Your task to perform on an android device: Search for "sony triple a" on amazon, select the first entry, and add it to the cart. Image 0: 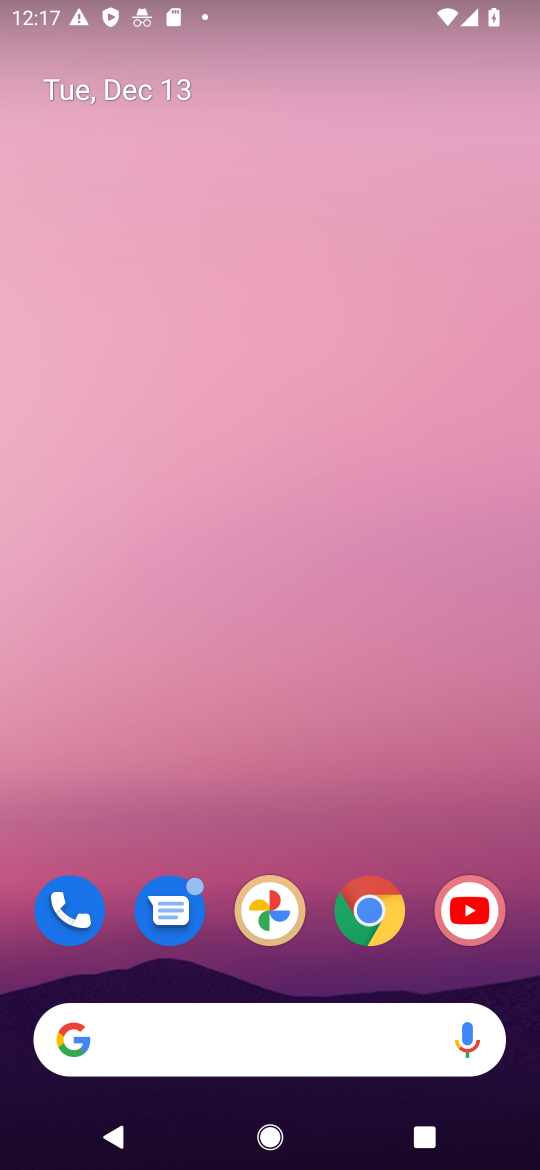
Step 0: click (348, 910)
Your task to perform on an android device: Search for "sony triple a" on amazon, select the first entry, and add it to the cart. Image 1: 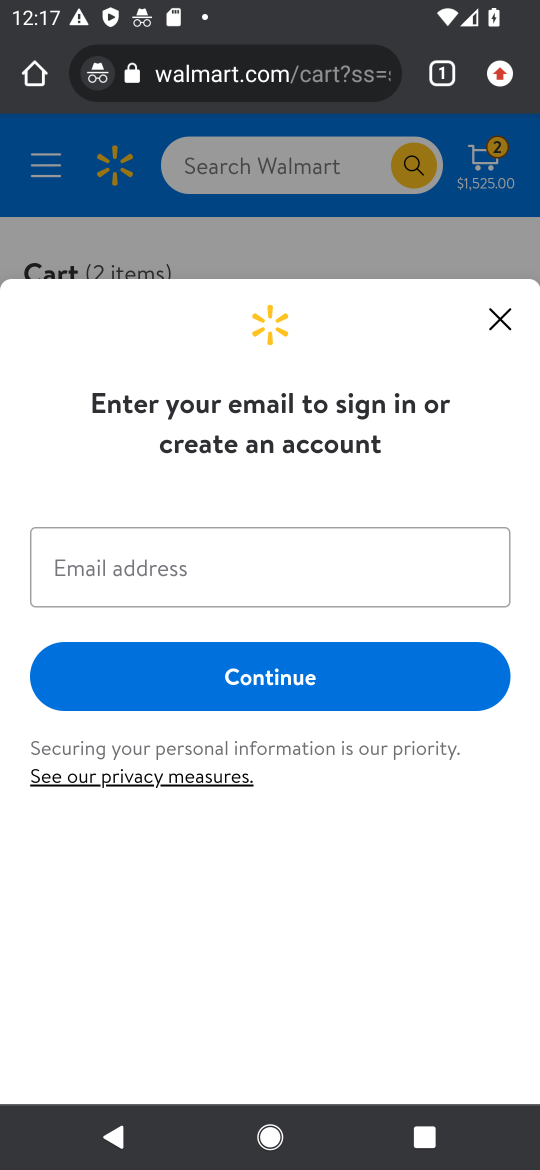
Step 1: click (504, 318)
Your task to perform on an android device: Search for "sony triple a" on amazon, select the first entry, and add it to the cart. Image 2: 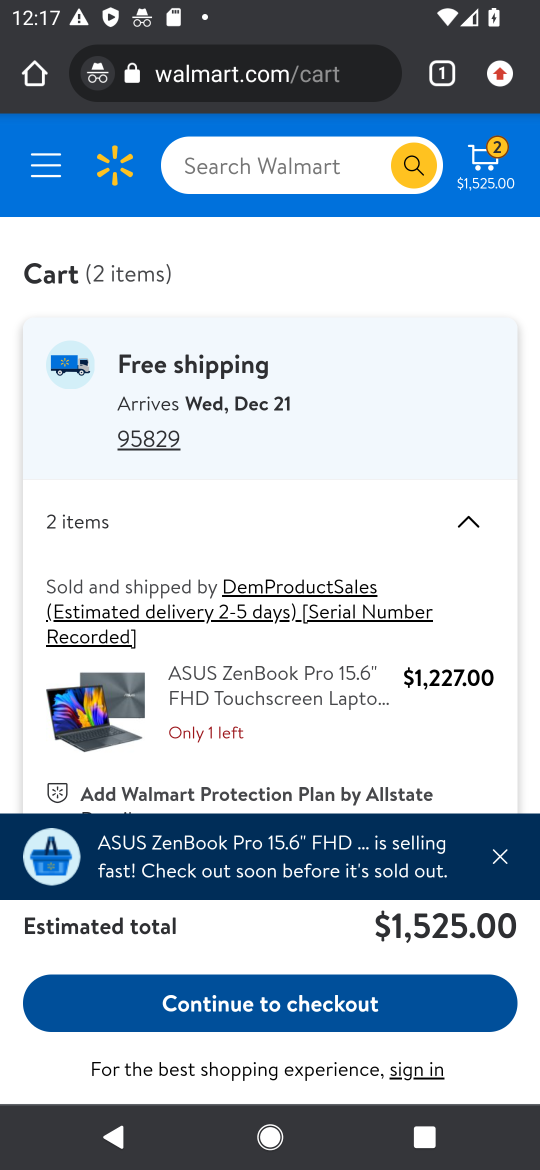
Step 2: click (305, 158)
Your task to perform on an android device: Search for "sony triple a" on amazon, select the first entry, and add it to the cart. Image 3: 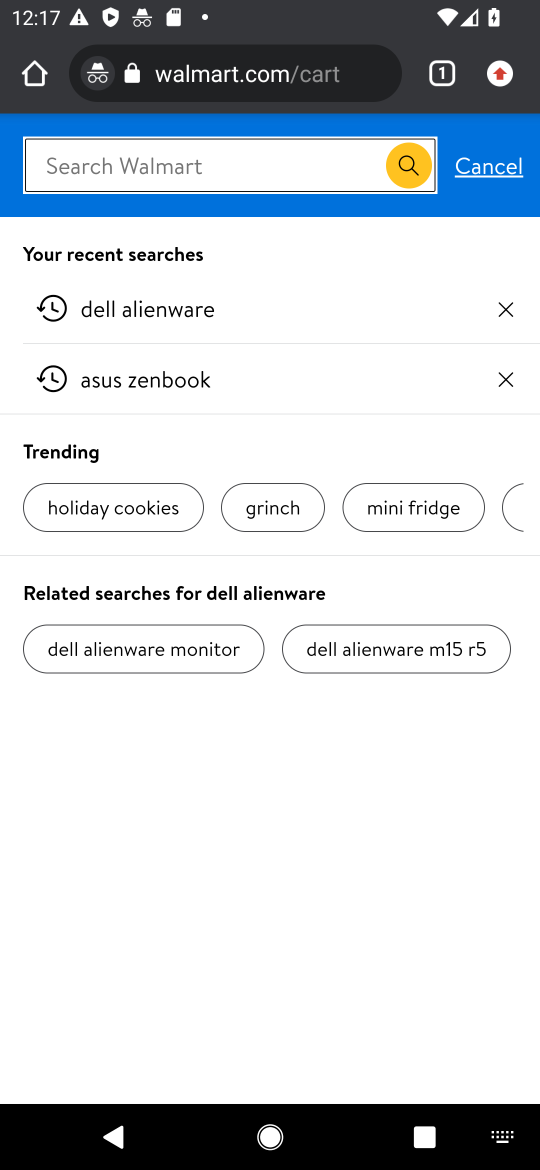
Step 3: click (240, 68)
Your task to perform on an android device: Search for "sony triple a" on amazon, select the first entry, and add it to the cart. Image 4: 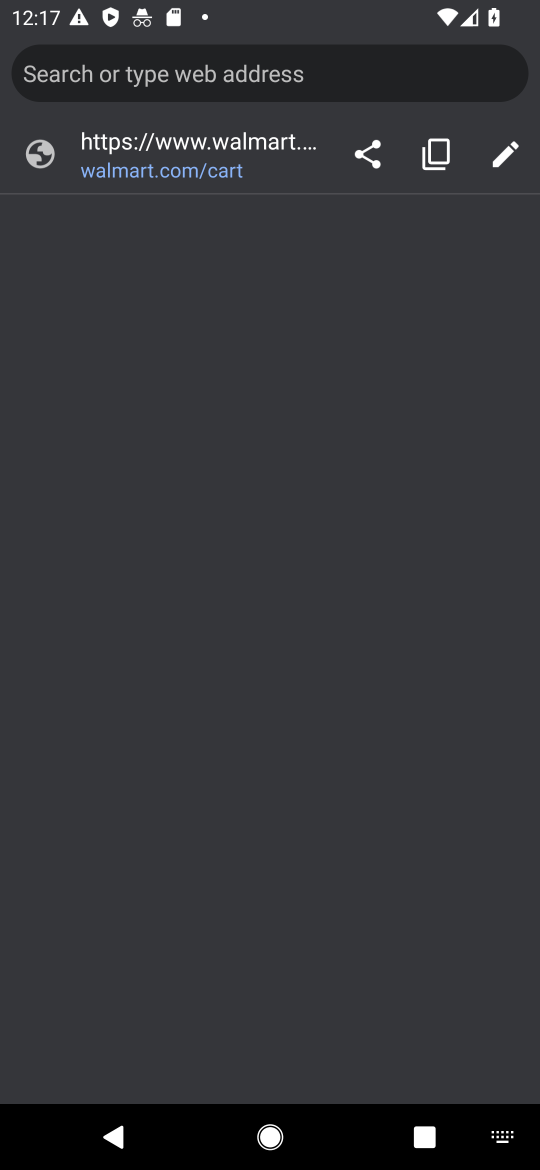
Step 4: type "AMAZON"
Your task to perform on an android device: Search for "sony triple a" on amazon, select the first entry, and add it to the cart. Image 5: 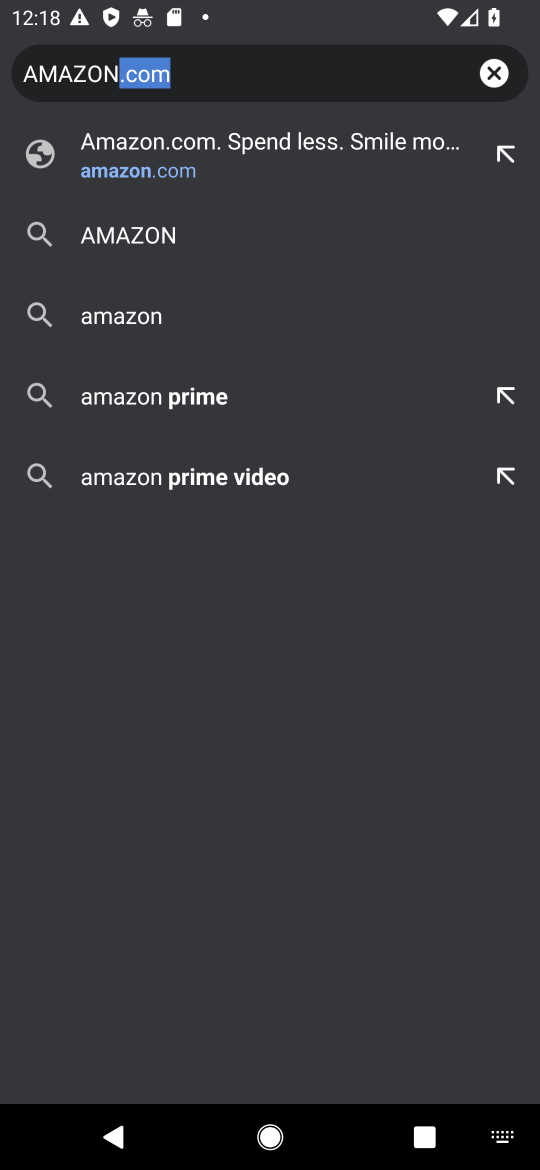
Step 5: click (182, 156)
Your task to perform on an android device: Search for "sony triple a" on amazon, select the first entry, and add it to the cart. Image 6: 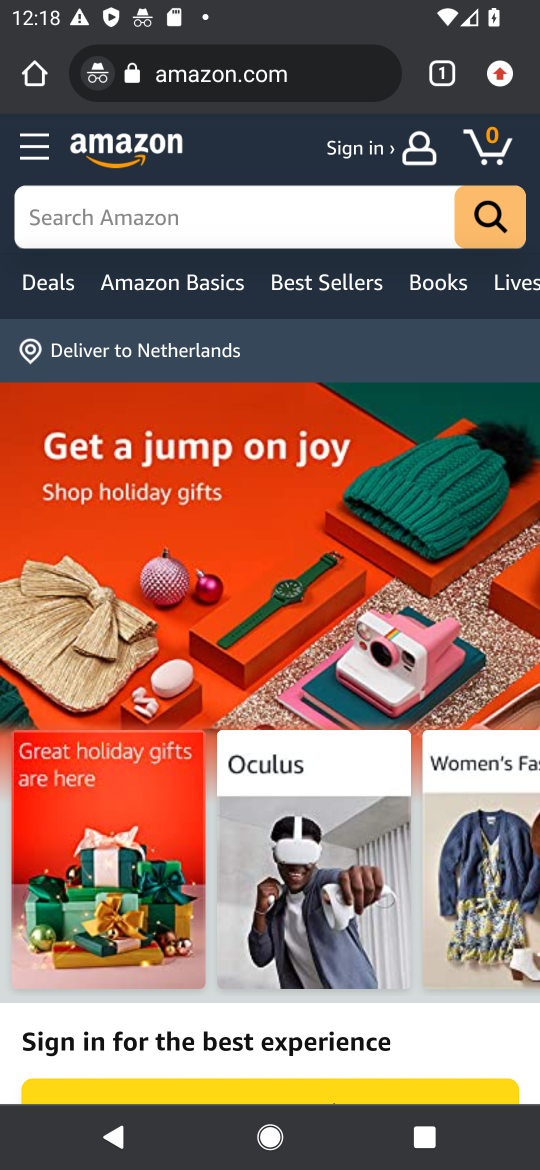
Step 6: click (204, 204)
Your task to perform on an android device: Search for "sony triple a" on amazon, select the first entry, and add it to the cart. Image 7: 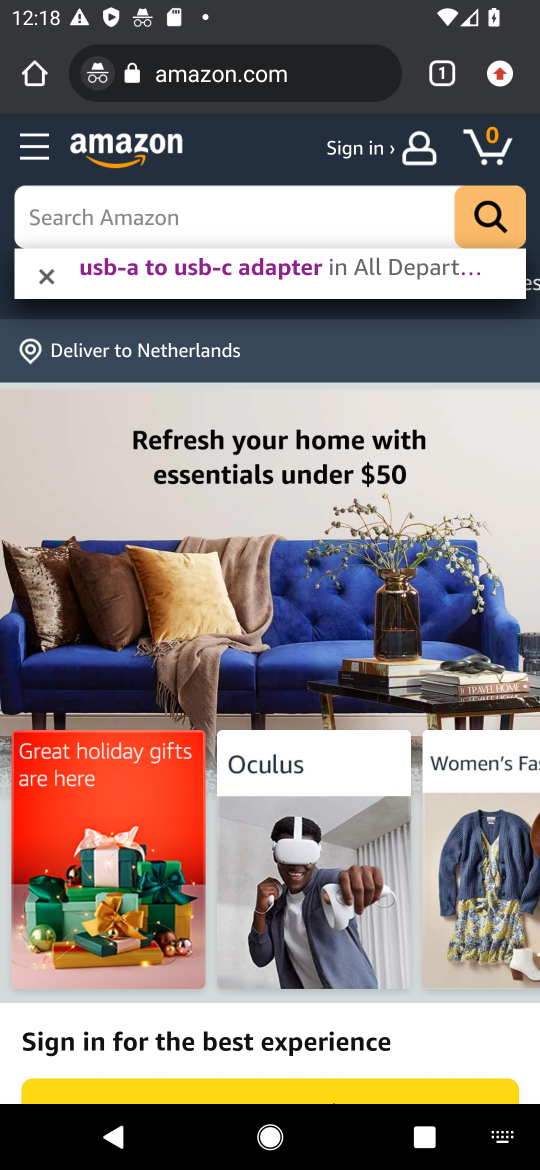
Step 7: type "sony triple a"
Your task to perform on an android device: Search for "sony triple a" on amazon, select the first entry, and add it to the cart. Image 8: 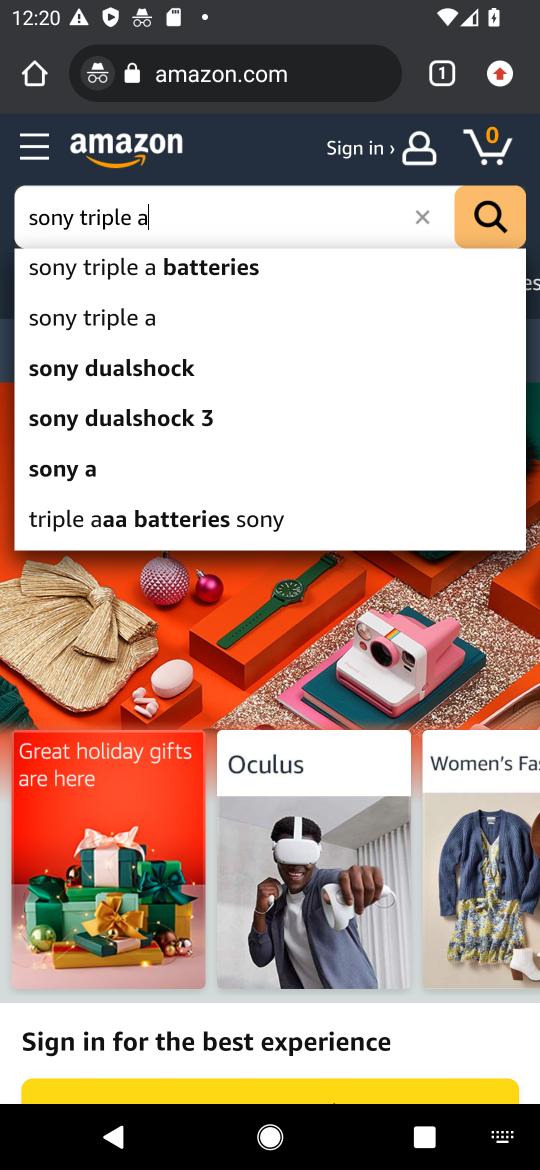
Step 8: click (160, 271)
Your task to perform on an android device: Search for "sony triple a" on amazon, select the first entry, and add it to the cart. Image 9: 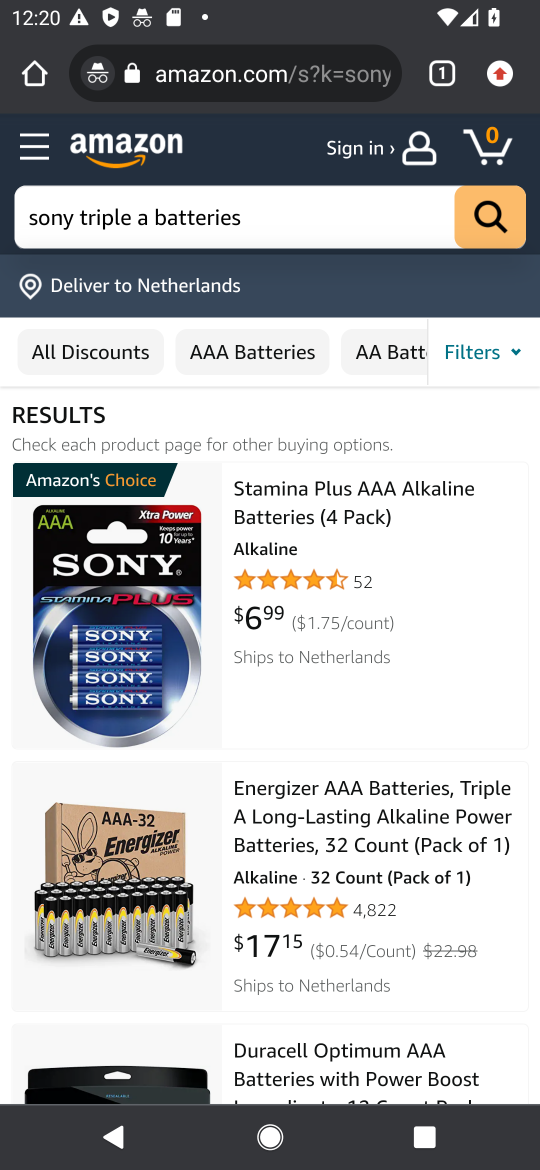
Step 9: click (426, 499)
Your task to perform on an android device: Search for "sony triple a" on amazon, select the first entry, and add it to the cart. Image 10: 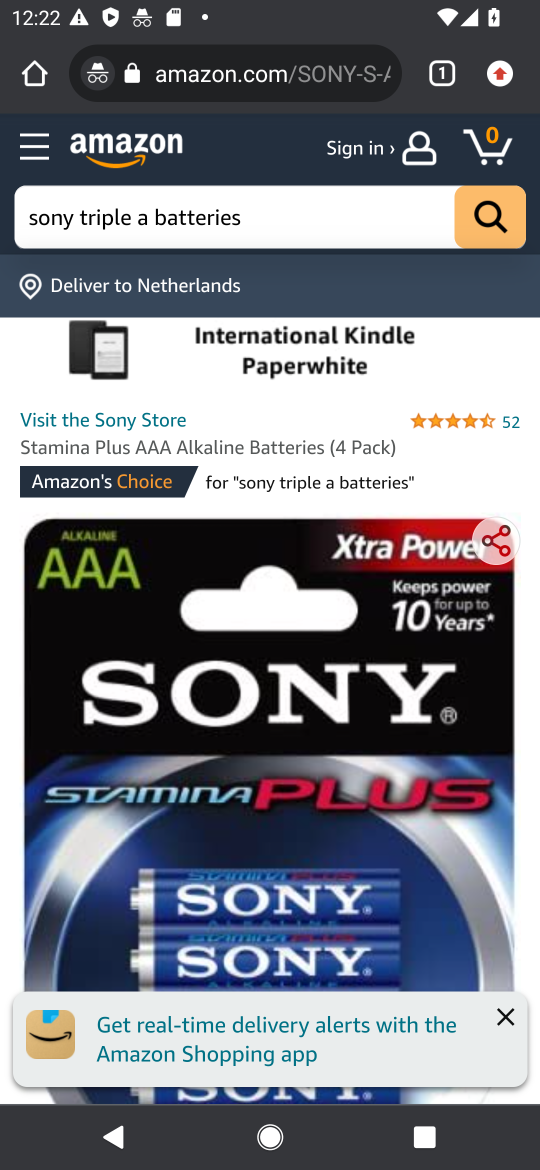
Step 10: drag from (403, 870) to (326, 191)
Your task to perform on an android device: Search for "sony triple a" on amazon, select the first entry, and add it to the cart. Image 11: 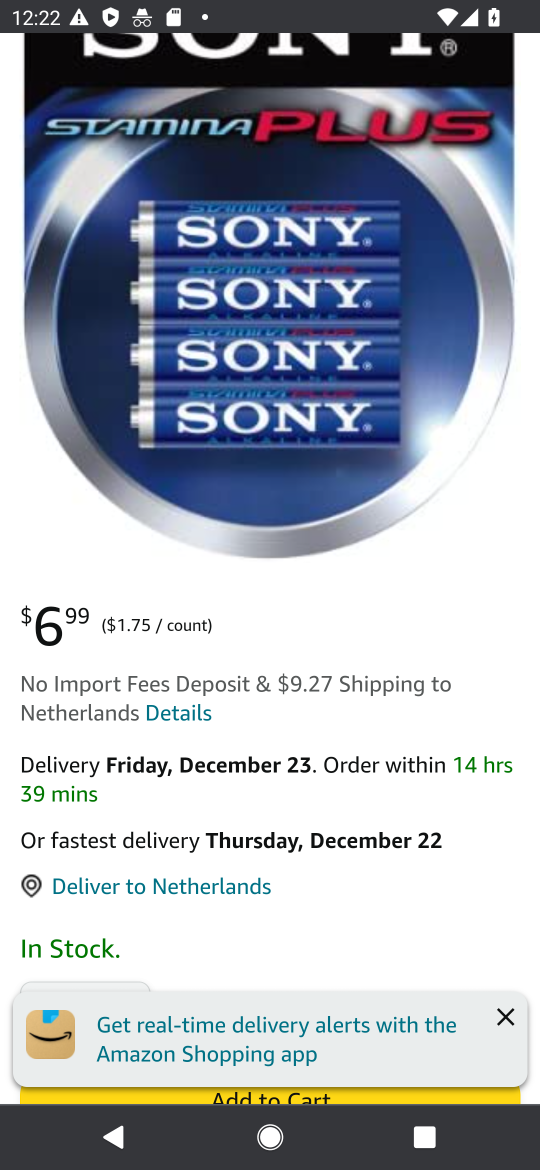
Step 11: drag from (378, 911) to (346, 346)
Your task to perform on an android device: Search for "sony triple a" on amazon, select the first entry, and add it to the cart. Image 12: 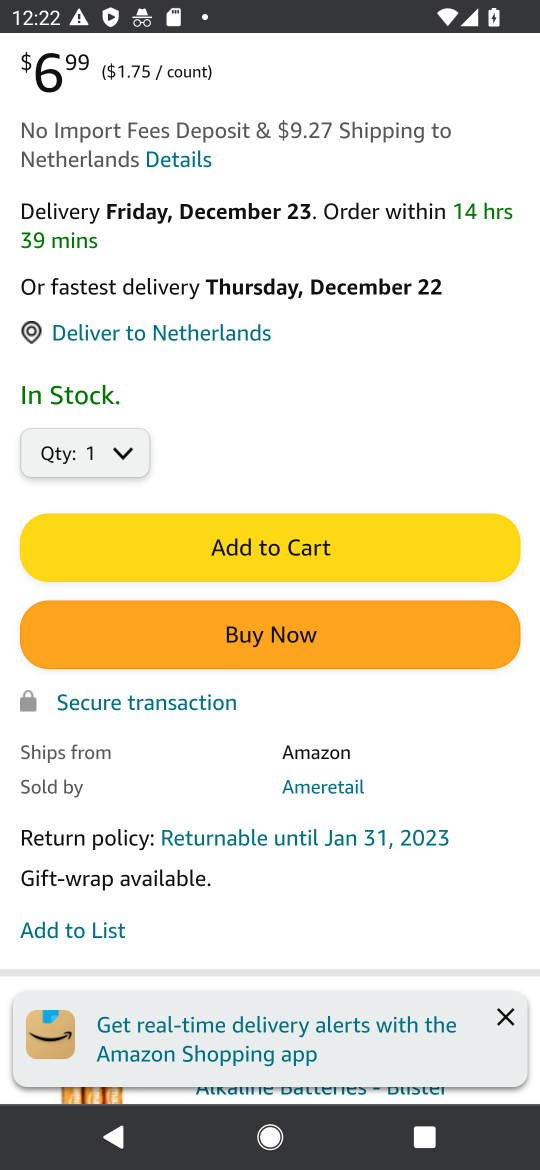
Step 12: click (278, 550)
Your task to perform on an android device: Search for "sony triple a" on amazon, select the first entry, and add it to the cart. Image 13: 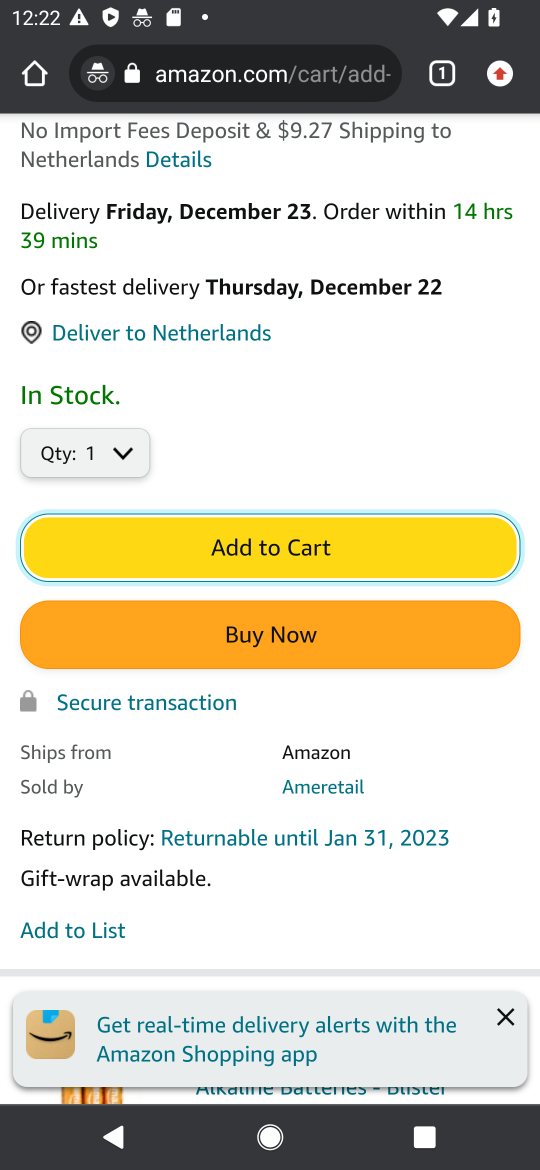
Step 13: task complete